Your task to perform on an android device: Open Google Maps and go to "Timeline" Image 0: 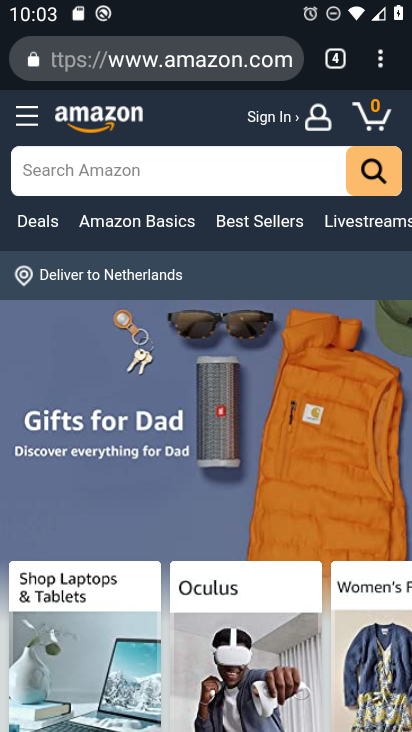
Step 0: press home button
Your task to perform on an android device: Open Google Maps and go to "Timeline" Image 1: 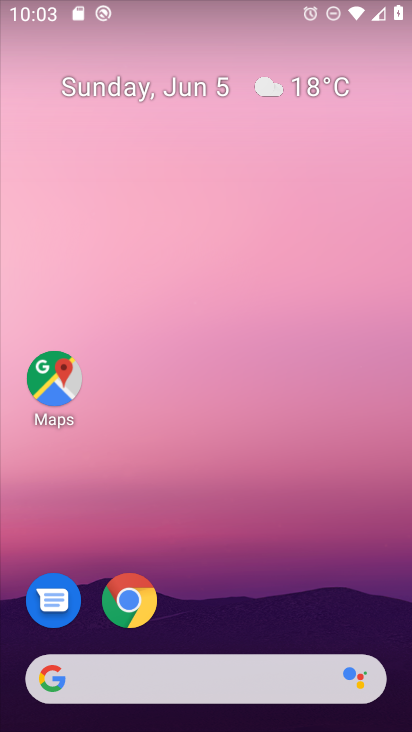
Step 1: click (47, 369)
Your task to perform on an android device: Open Google Maps and go to "Timeline" Image 2: 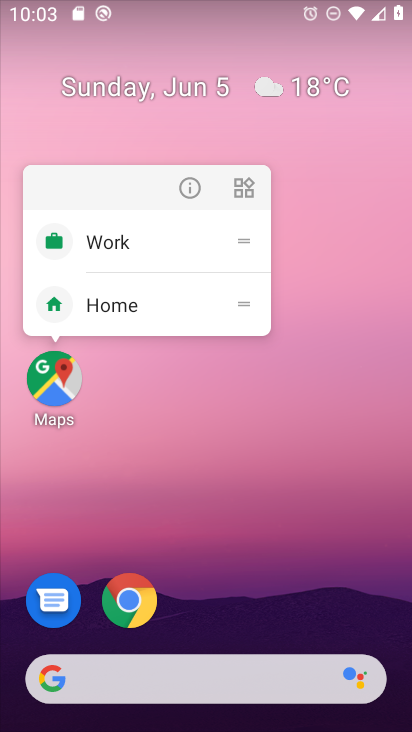
Step 2: click (47, 372)
Your task to perform on an android device: Open Google Maps and go to "Timeline" Image 3: 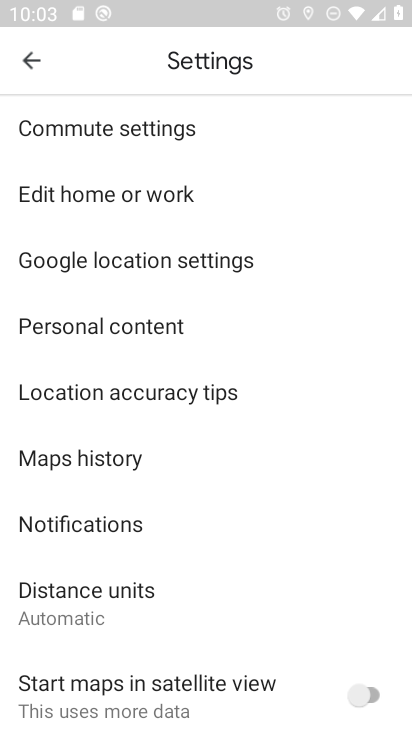
Step 3: click (28, 50)
Your task to perform on an android device: Open Google Maps and go to "Timeline" Image 4: 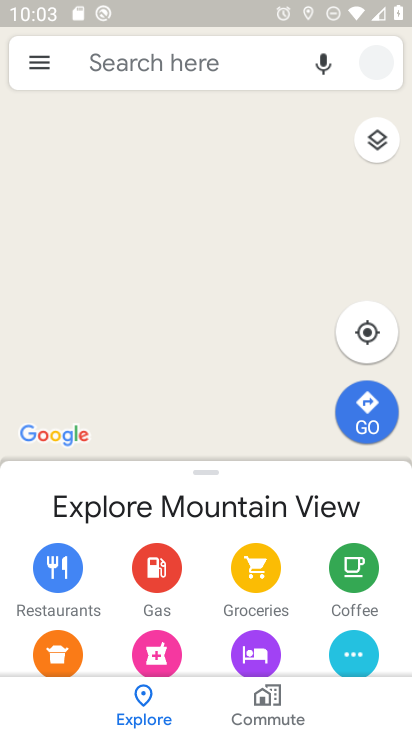
Step 4: click (31, 54)
Your task to perform on an android device: Open Google Maps and go to "Timeline" Image 5: 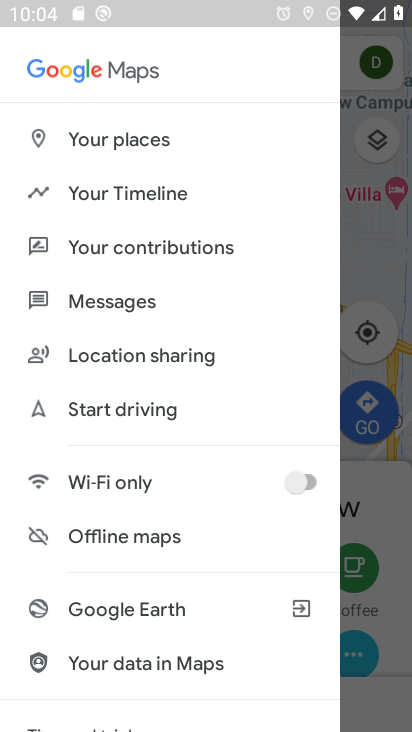
Step 5: click (143, 184)
Your task to perform on an android device: Open Google Maps and go to "Timeline" Image 6: 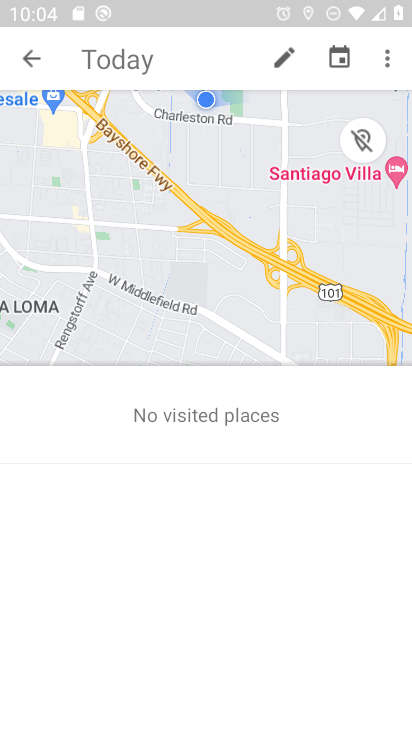
Step 6: task complete